Your task to perform on an android device: Open CNN.com Image 0: 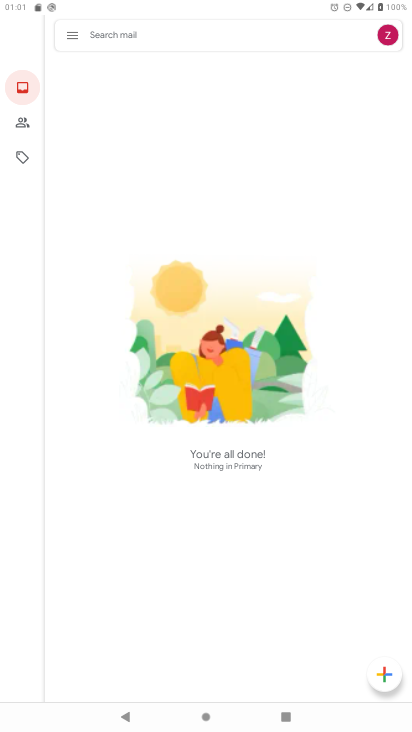
Step 0: press home button
Your task to perform on an android device: Open CNN.com Image 1: 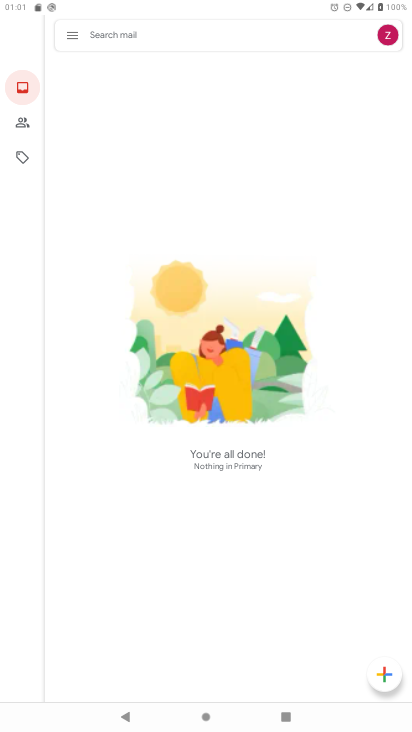
Step 1: press home button
Your task to perform on an android device: Open CNN.com Image 2: 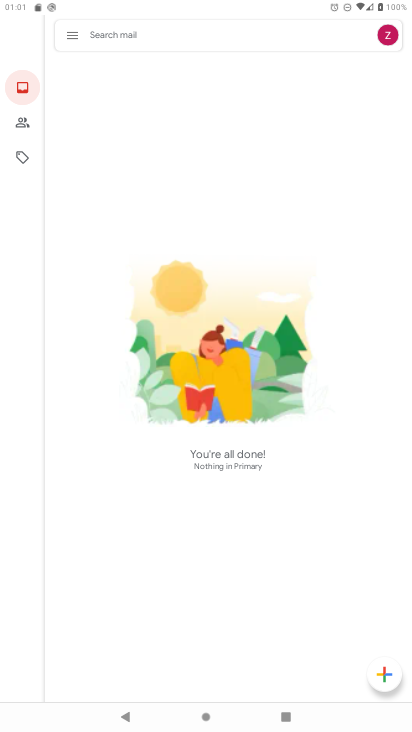
Step 2: drag from (258, 435) to (297, 35)
Your task to perform on an android device: Open CNN.com Image 3: 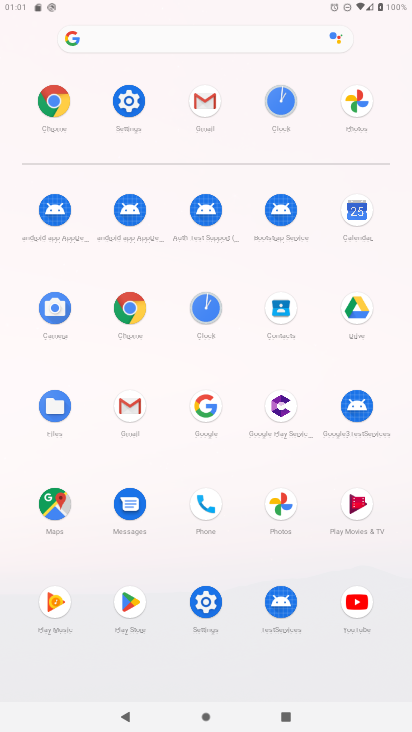
Step 3: click (121, 37)
Your task to perform on an android device: Open CNN.com Image 4: 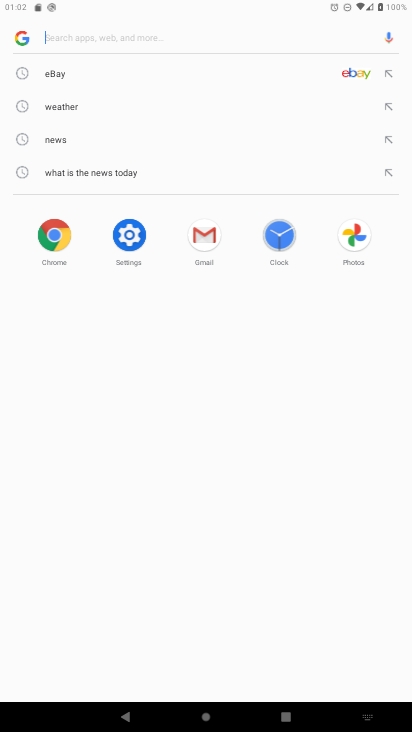
Step 4: type "CNN.com"
Your task to perform on an android device: Open CNN.com Image 5: 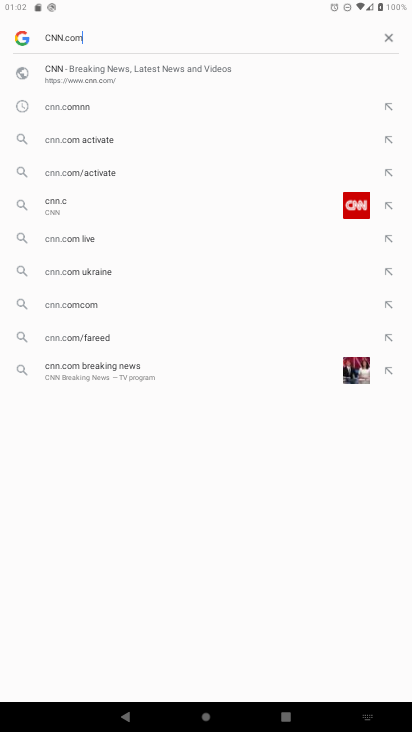
Step 5: type ""
Your task to perform on an android device: Open CNN.com Image 6: 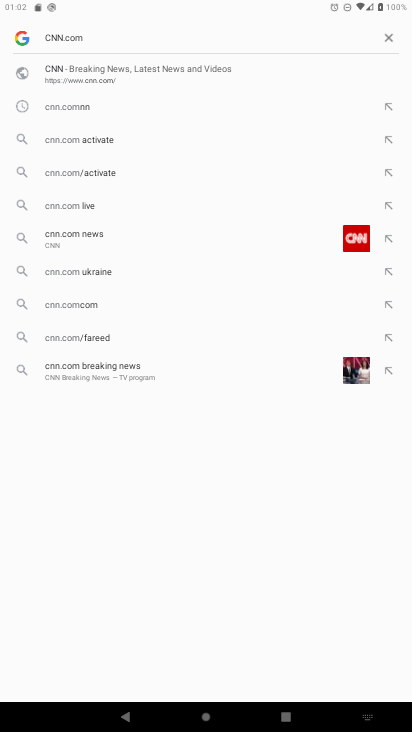
Step 6: click (69, 81)
Your task to perform on an android device: Open CNN.com Image 7: 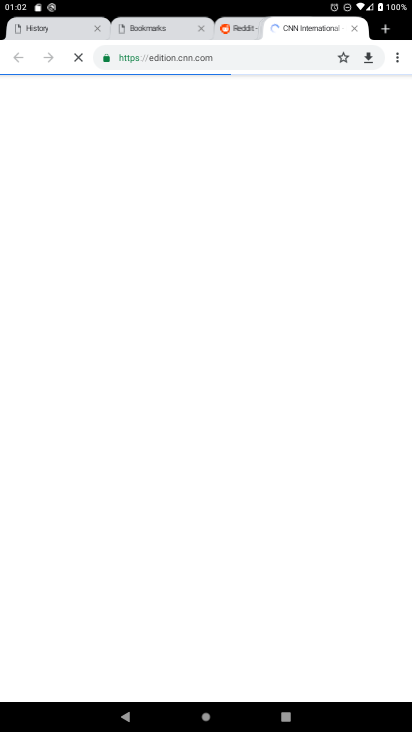
Step 7: task complete